Your task to perform on an android device: Open internet settings Image 0: 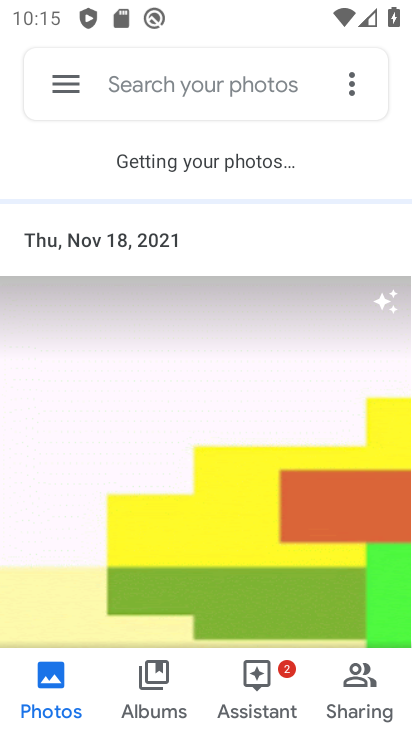
Step 0: press home button
Your task to perform on an android device: Open internet settings Image 1: 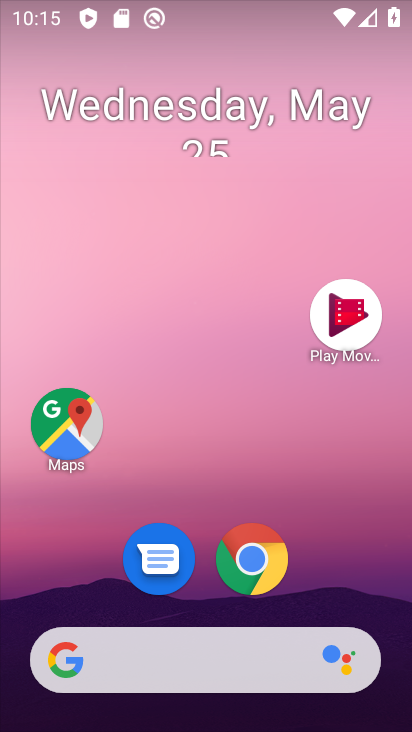
Step 1: drag from (337, 593) to (327, 396)
Your task to perform on an android device: Open internet settings Image 2: 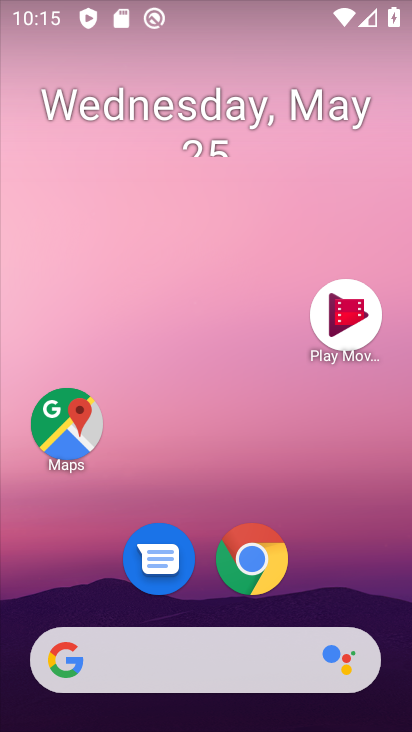
Step 2: drag from (370, 562) to (322, 68)
Your task to perform on an android device: Open internet settings Image 3: 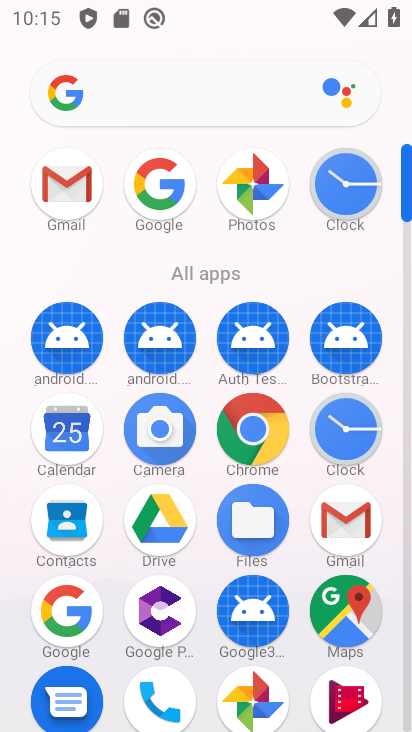
Step 3: drag from (196, 668) to (209, 377)
Your task to perform on an android device: Open internet settings Image 4: 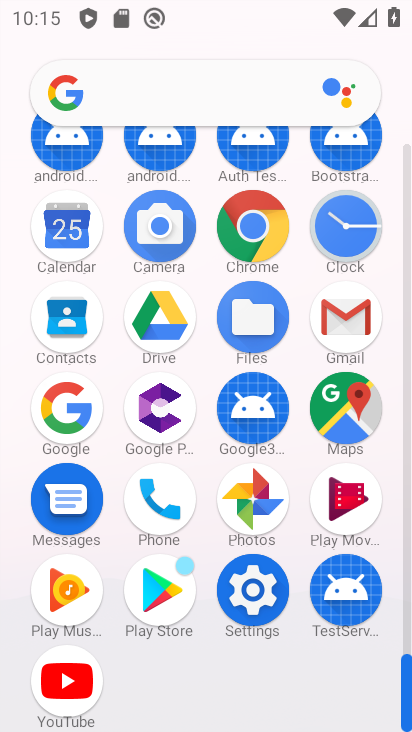
Step 4: click (252, 581)
Your task to perform on an android device: Open internet settings Image 5: 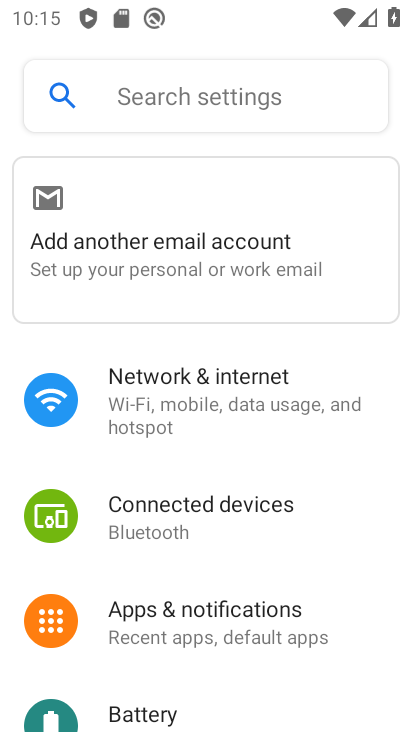
Step 5: click (138, 385)
Your task to perform on an android device: Open internet settings Image 6: 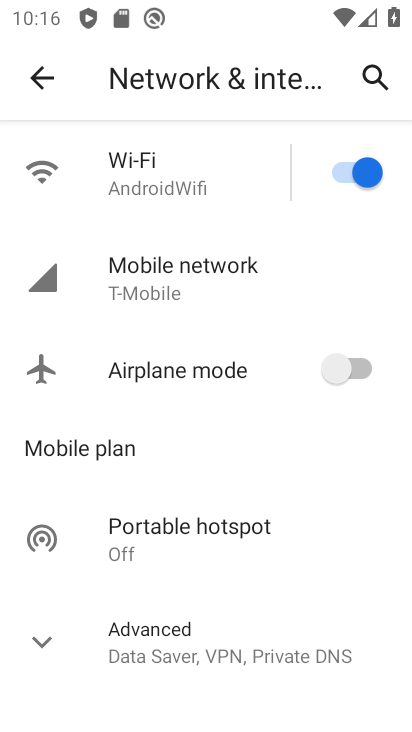
Step 6: task complete